Your task to perform on an android device: Open location settings Image 0: 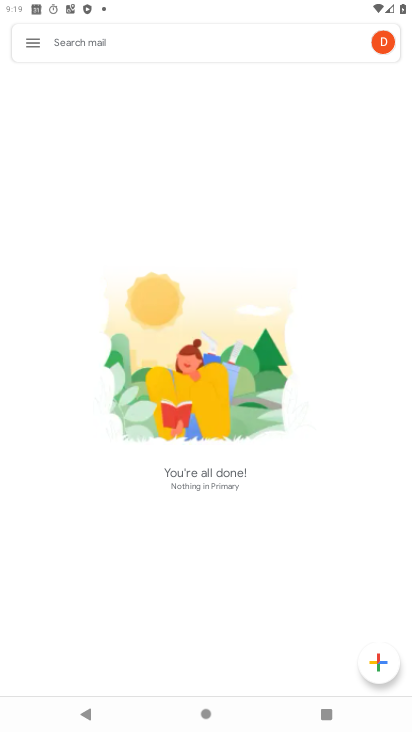
Step 0: press home button
Your task to perform on an android device: Open location settings Image 1: 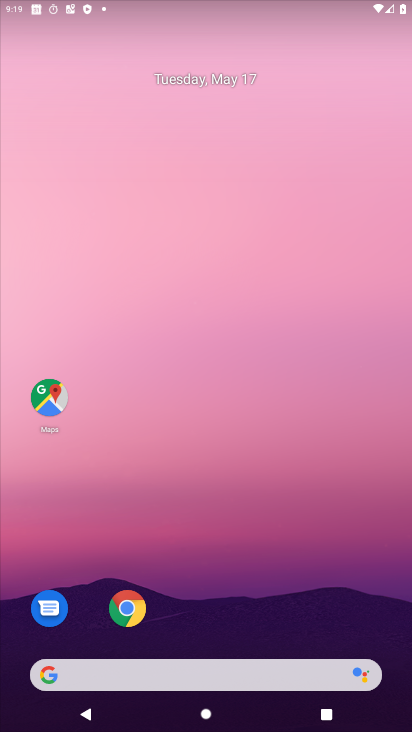
Step 1: drag from (313, 580) to (314, 190)
Your task to perform on an android device: Open location settings Image 2: 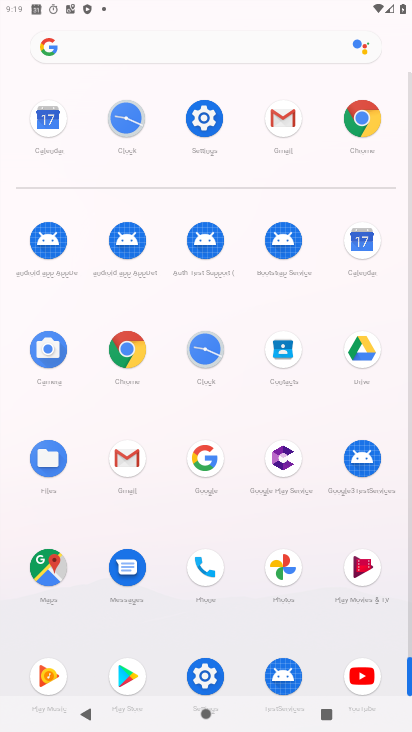
Step 2: click (198, 679)
Your task to perform on an android device: Open location settings Image 3: 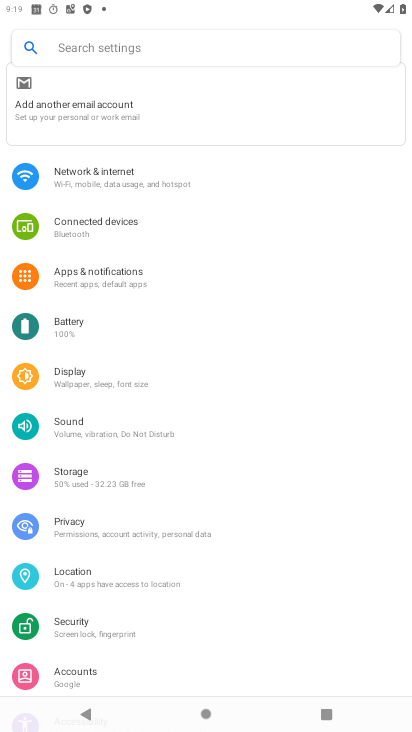
Step 3: drag from (224, 259) to (204, 568)
Your task to perform on an android device: Open location settings Image 4: 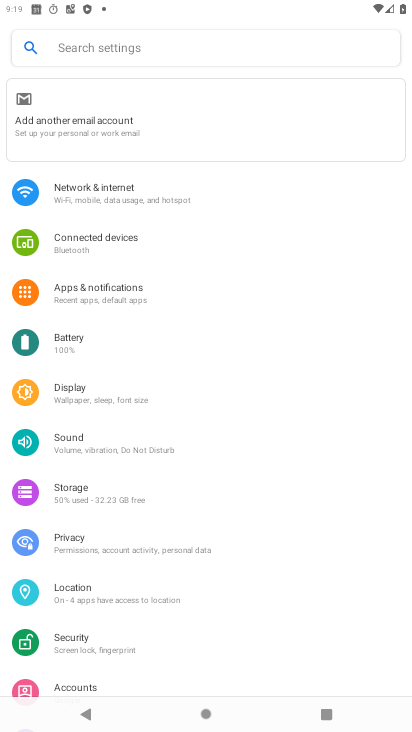
Step 4: drag from (255, 637) to (291, 355)
Your task to perform on an android device: Open location settings Image 5: 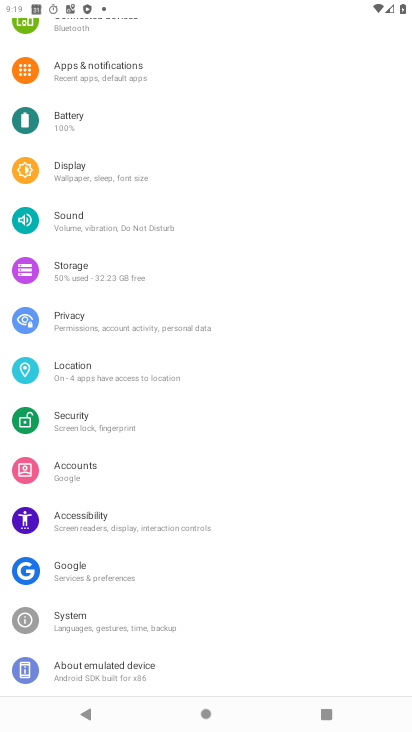
Step 5: click (160, 371)
Your task to perform on an android device: Open location settings Image 6: 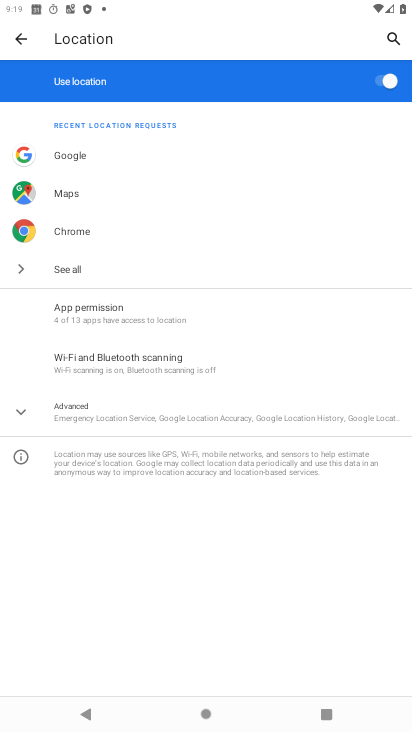
Step 6: task complete